Your task to perform on an android device: What is the recent news? Image 0: 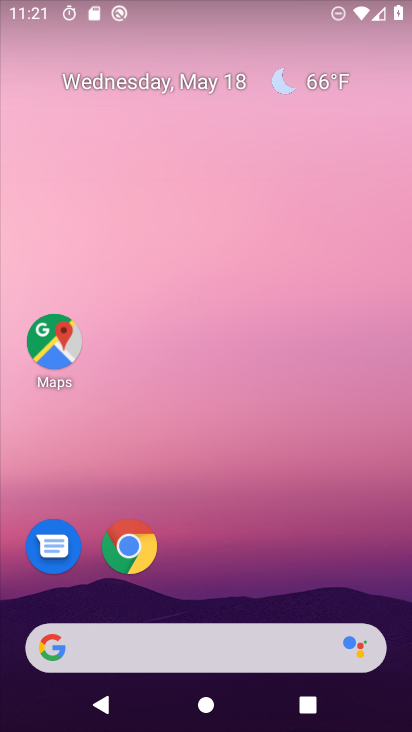
Step 0: click (202, 639)
Your task to perform on an android device: What is the recent news? Image 1: 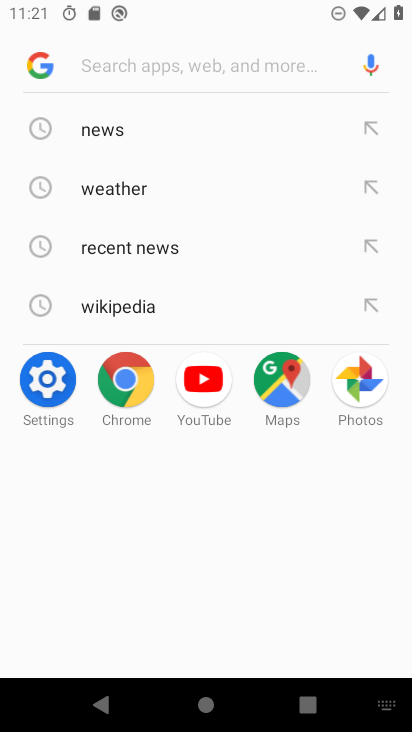
Step 1: click (217, 250)
Your task to perform on an android device: What is the recent news? Image 2: 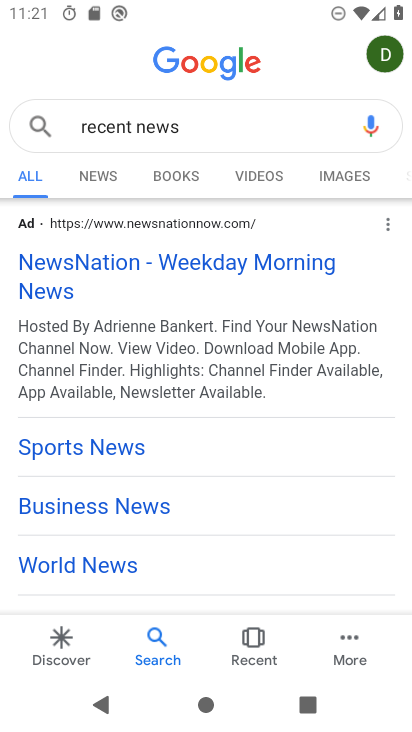
Step 2: click (92, 172)
Your task to perform on an android device: What is the recent news? Image 3: 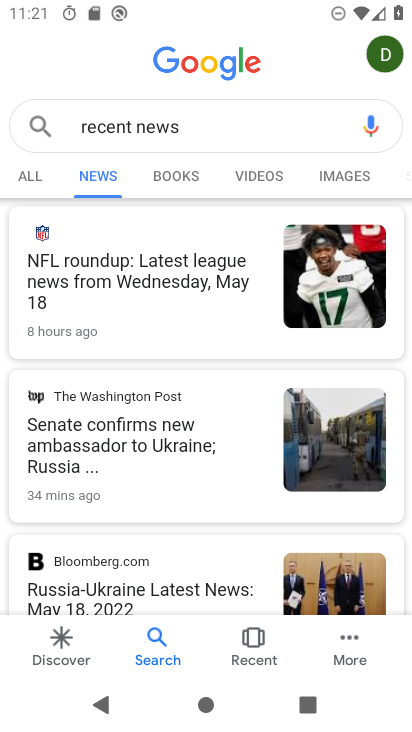
Step 3: task complete